Your task to perform on an android device: Show me popular videos on Youtube Image 0: 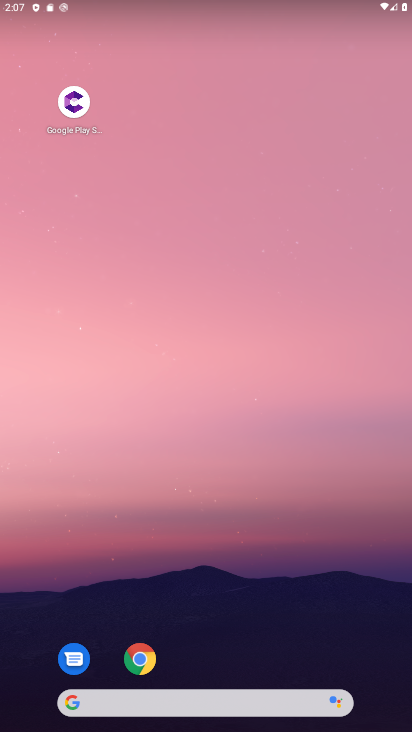
Step 0: drag from (239, 633) to (166, 116)
Your task to perform on an android device: Show me popular videos on Youtube Image 1: 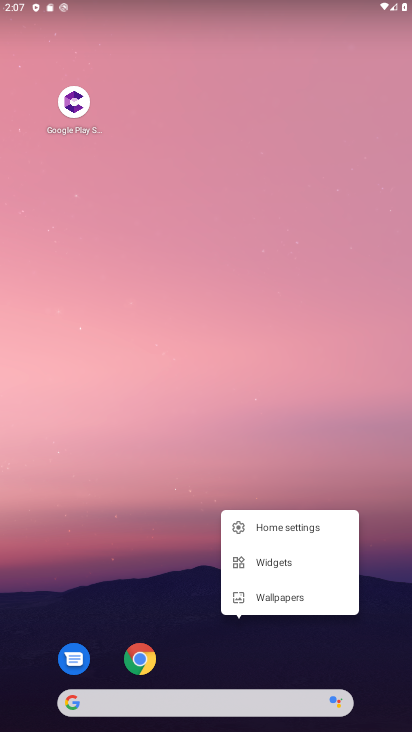
Step 1: drag from (400, 639) to (331, 126)
Your task to perform on an android device: Show me popular videos on Youtube Image 2: 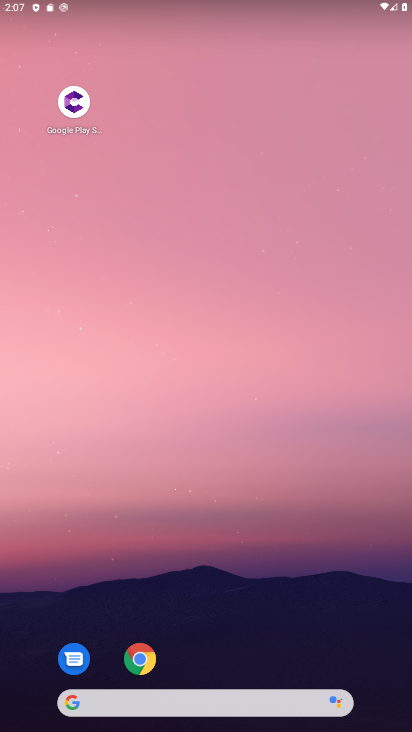
Step 2: drag from (261, 637) to (246, 156)
Your task to perform on an android device: Show me popular videos on Youtube Image 3: 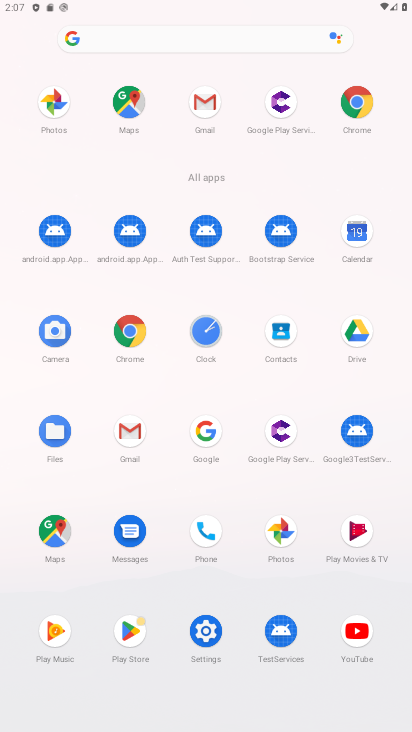
Step 3: click (356, 647)
Your task to perform on an android device: Show me popular videos on Youtube Image 4: 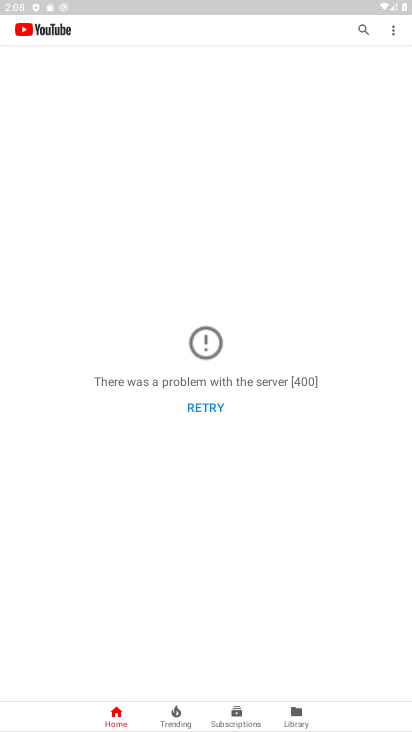
Step 4: click (179, 712)
Your task to perform on an android device: Show me popular videos on Youtube Image 5: 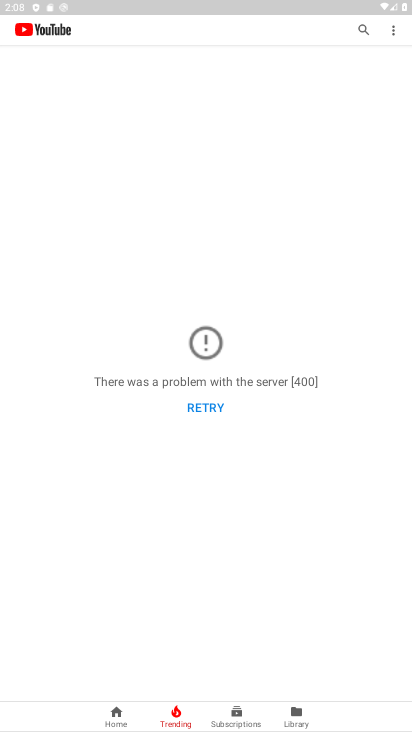
Step 5: task complete